Your task to perform on an android device: Clear all items from cart on target.com. Search for "alienware area 51" on target.com, select the first entry, add it to the cart, then select checkout. Image 0: 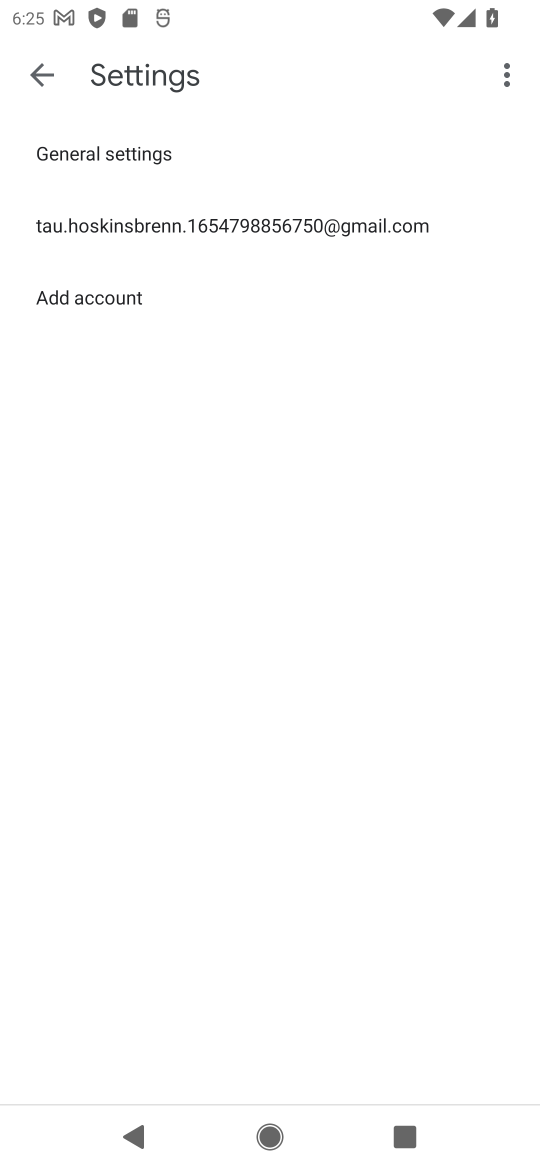
Step 0: press home button
Your task to perform on an android device: Clear all items from cart on target.com. Search for "alienware area 51" on target.com, select the first entry, add it to the cart, then select checkout. Image 1: 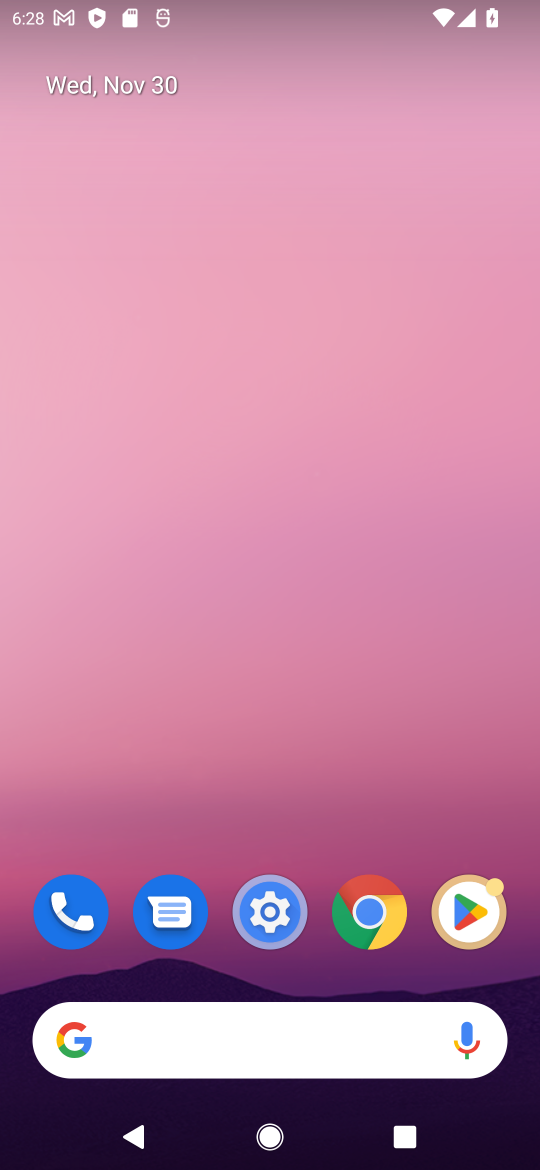
Step 1: click (216, 1037)
Your task to perform on an android device: Clear all items from cart on target.com. Search for "alienware area 51" on target.com, select the first entry, add it to the cart, then select checkout. Image 2: 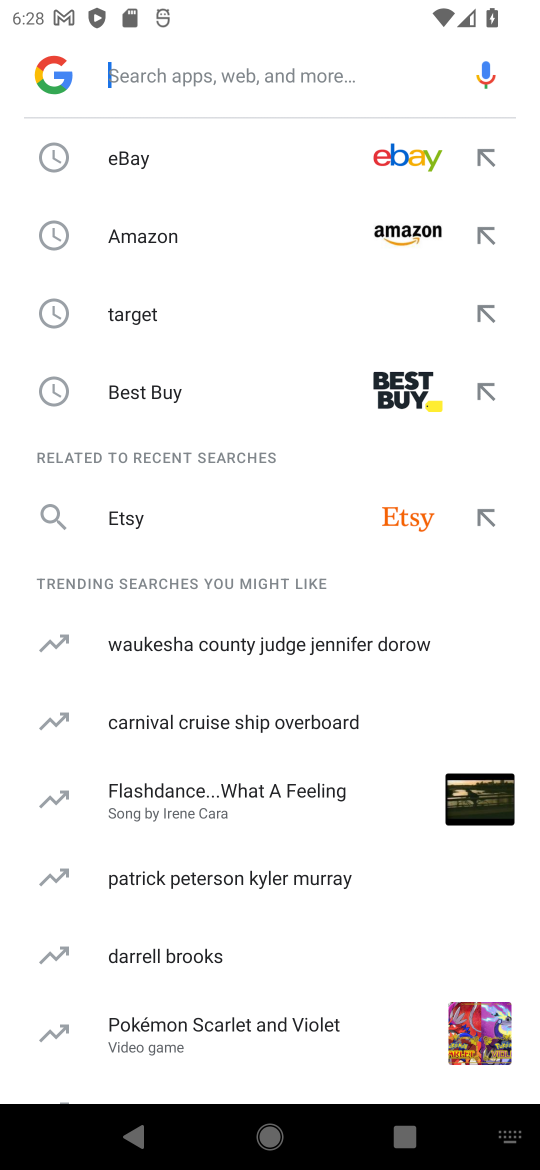
Step 2: click (140, 301)
Your task to perform on an android device: Clear all items from cart on target.com. Search for "alienware area 51" on target.com, select the first entry, add it to the cart, then select checkout. Image 3: 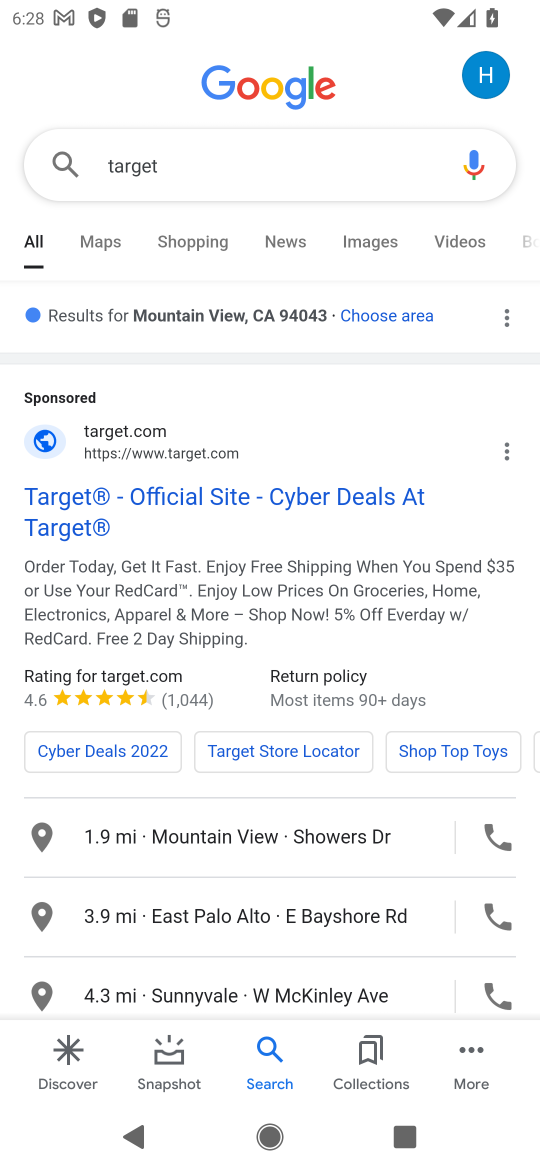
Step 3: click (260, 484)
Your task to perform on an android device: Clear all items from cart on target.com. Search for "alienware area 51" on target.com, select the first entry, add it to the cart, then select checkout. Image 4: 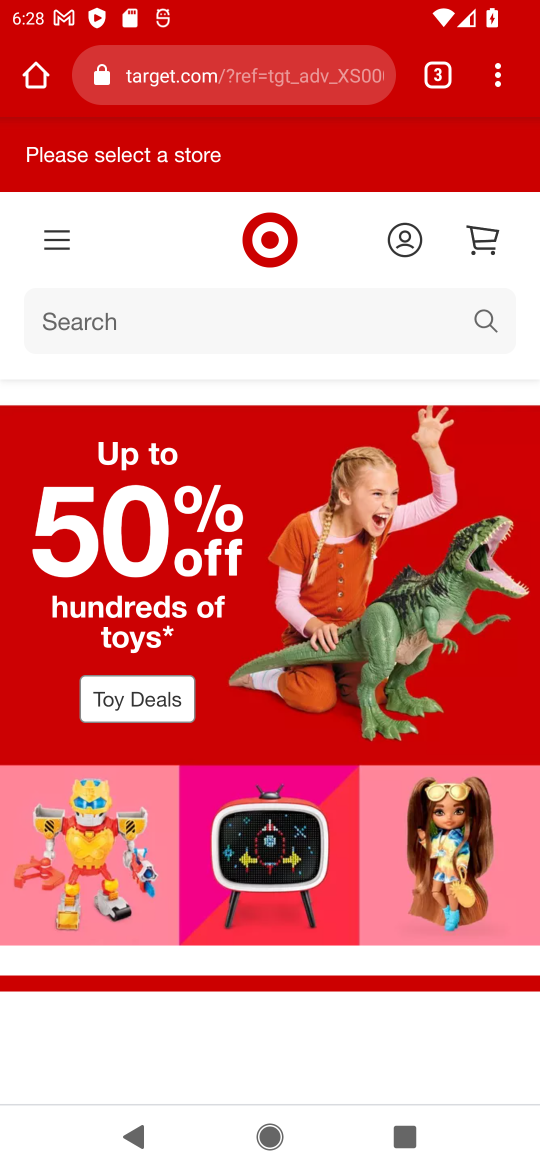
Step 4: click (142, 325)
Your task to perform on an android device: Clear all items from cart on target.com. Search for "alienware area 51" on target.com, select the first entry, add it to the cart, then select checkout. Image 5: 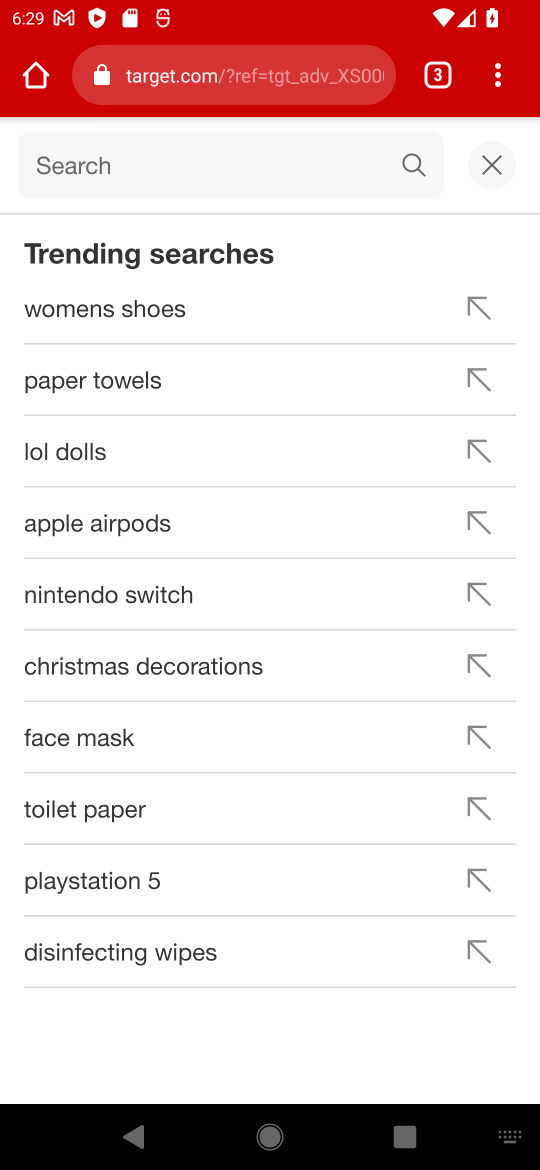
Step 5: type "alienware area 51"
Your task to perform on an android device: Clear all items from cart on target.com. Search for "alienware area 51" on target.com, select the first entry, add it to the cart, then select checkout. Image 6: 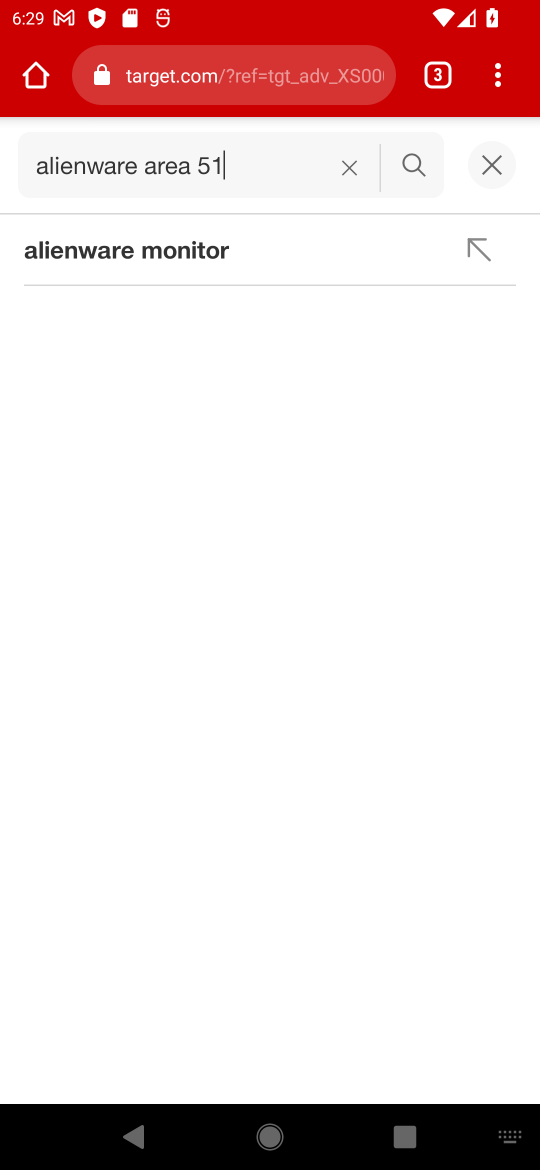
Step 6: click (167, 264)
Your task to perform on an android device: Clear all items from cart on target.com. Search for "alienware area 51" on target.com, select the first entry, add it to the cart, then select checkout. Image 7: 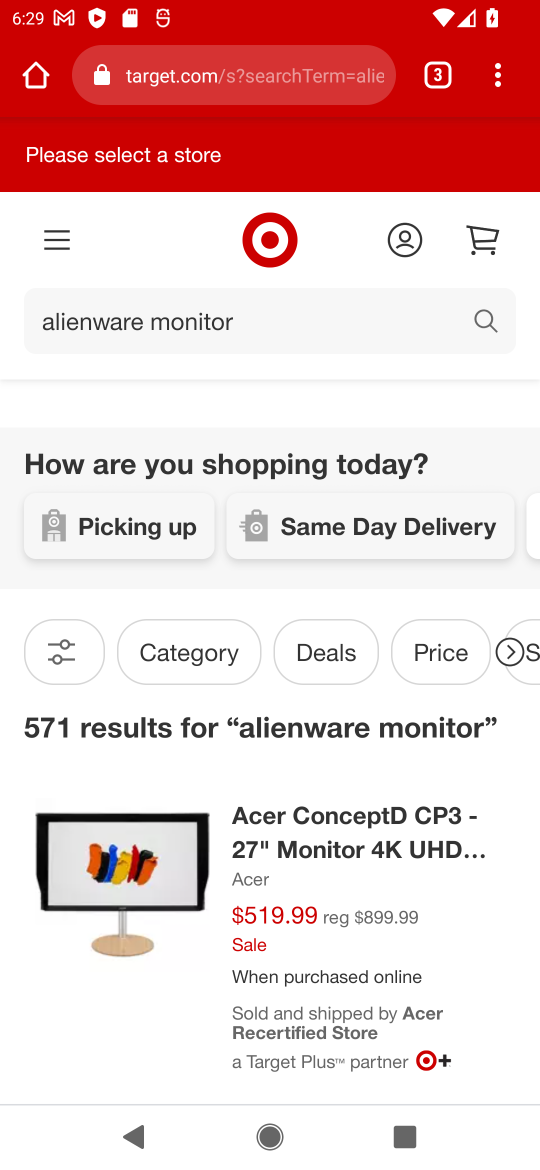
Step 7: click (300, 970)
Your task to perform on an android device: Clear all items from cart on target.com. Search for "alienware area 51" on target.com, select the first entry, add it to the cart, then select checkout. Image 8: 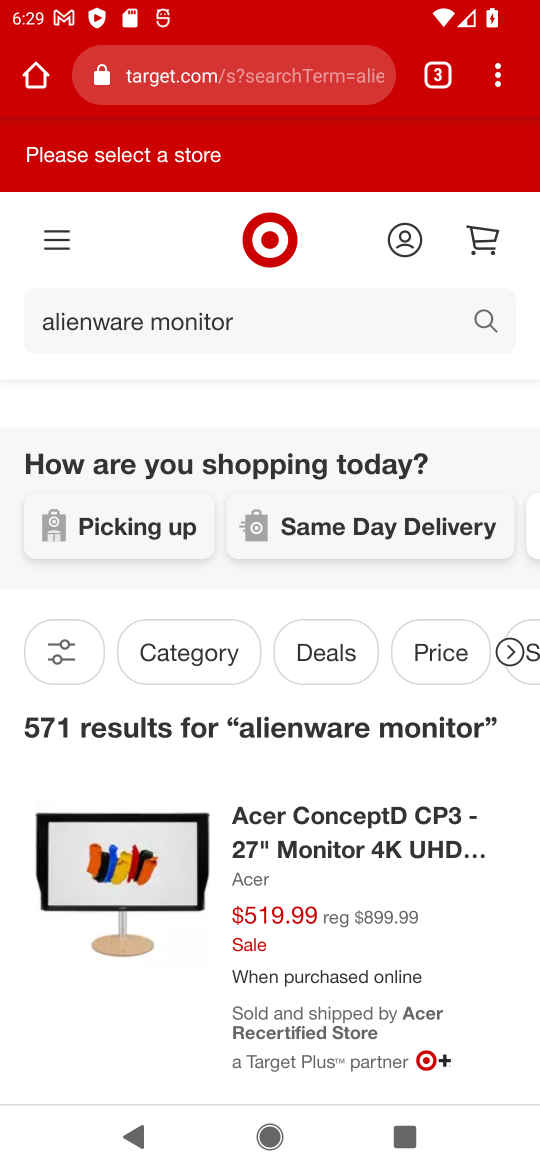
Step 8: click (250, 824)
Your task to perform on an android device: Clear all items from cart on target.com. Search for "alienware area 51" on target.com, select the first entry, add it to the cart, then select checkout. Image 9: 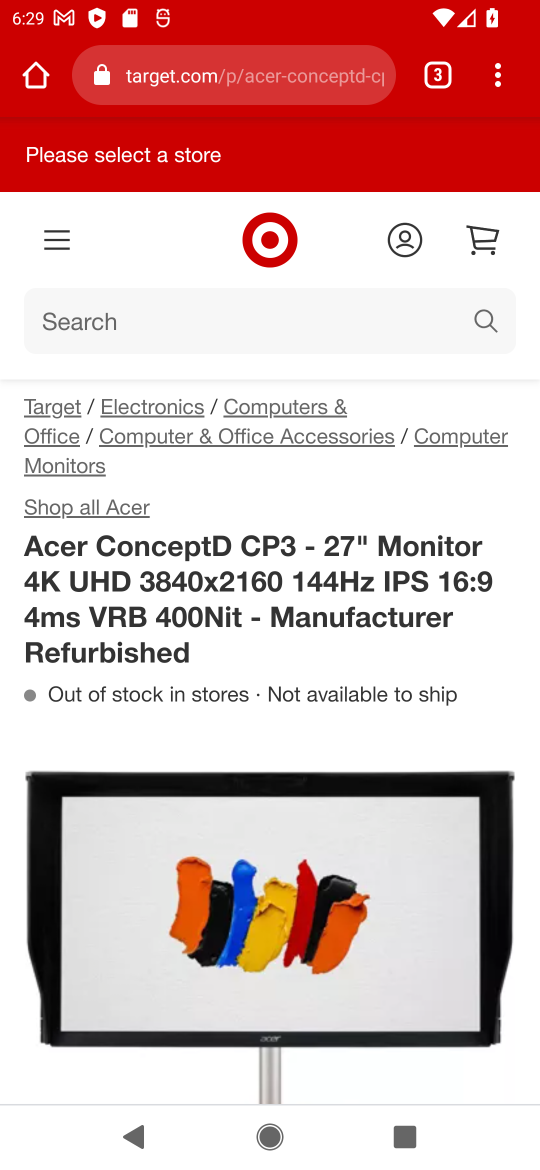
Step 9: drag from (414, 615) to (398, 517)
Your task to perform on an android device: Clear all items from cart on target.com. Search for "alienware area 51" on target.com, select the first entry, add it to the cart, then select checkout. Image 10: 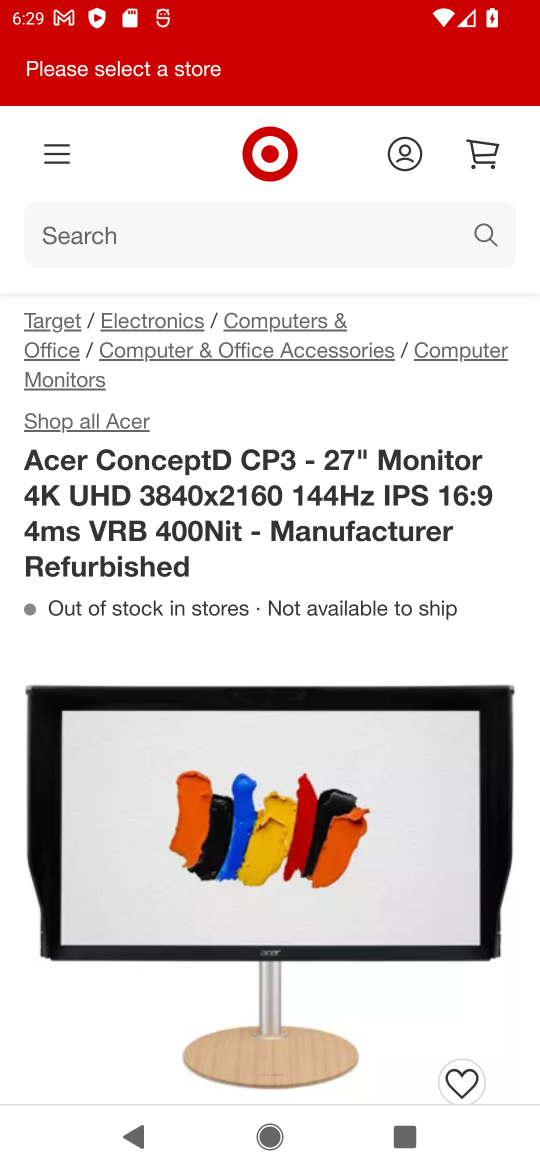
Step 10: drag from (298, 937) to (251, 517)
Your task to perform on an android device: Clear all items from cart on target.com. Search for "alienware area 51" on target.com, select the first entry, add it to the cart, then select checkout. Image 11: 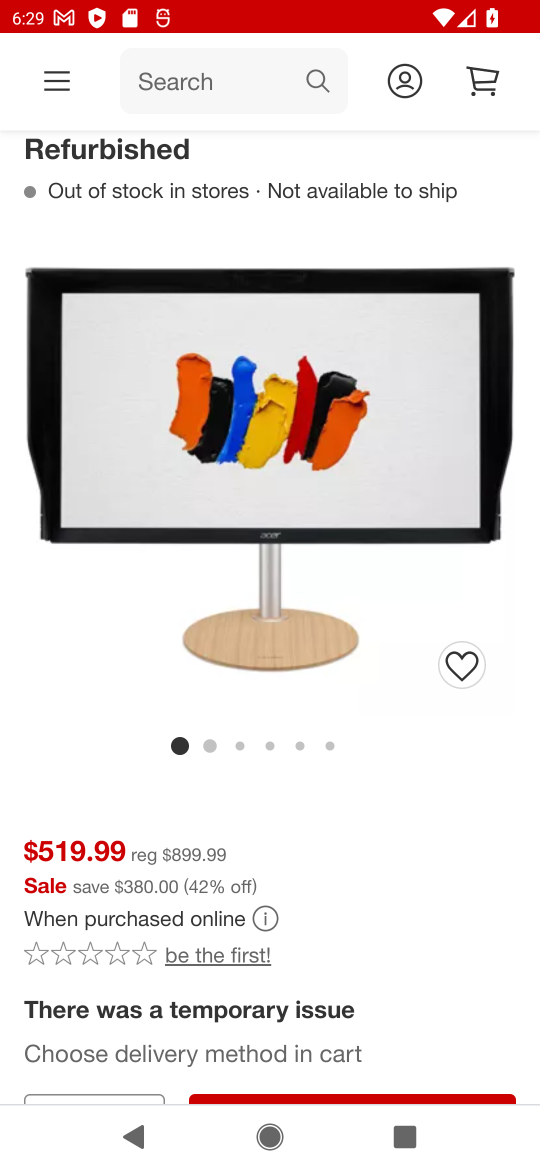
Step 11: drag from (286, 849) to (280, 539)
Your task to perform on an android device: Clear all items from cart on target.com. Search for "alienware area 51" on target.com, select the first entry, add it to the cart, then select checkout. Image 12: 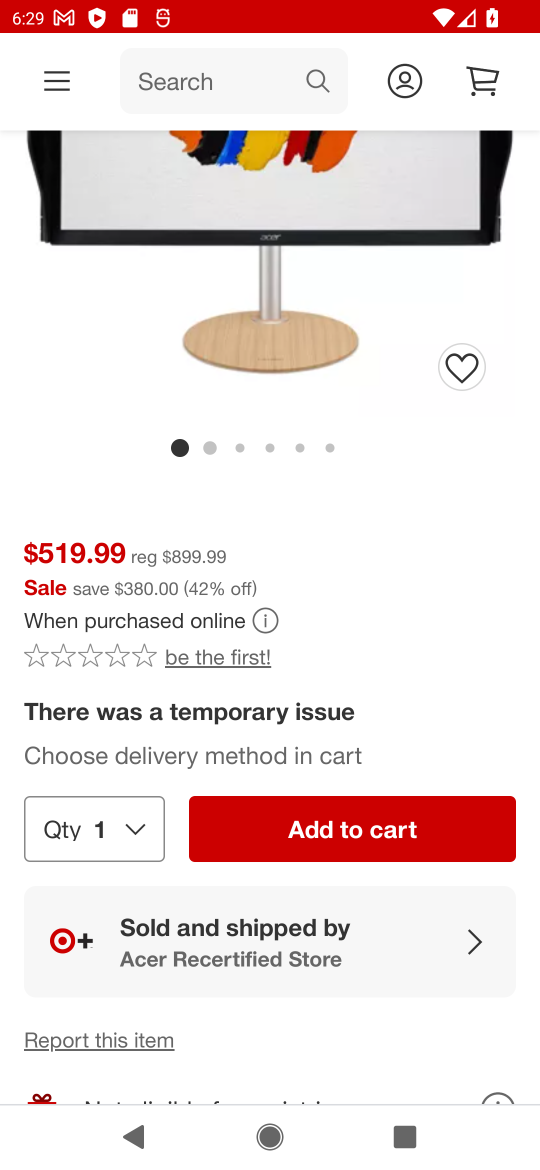
Step 12: click (348, 834)
Your task to perform on an android device: Clear all items from cart on target.com. Search for "alienware area 51" on target.com, select the first entry, add it to the cart, then select checkout. Image 13: 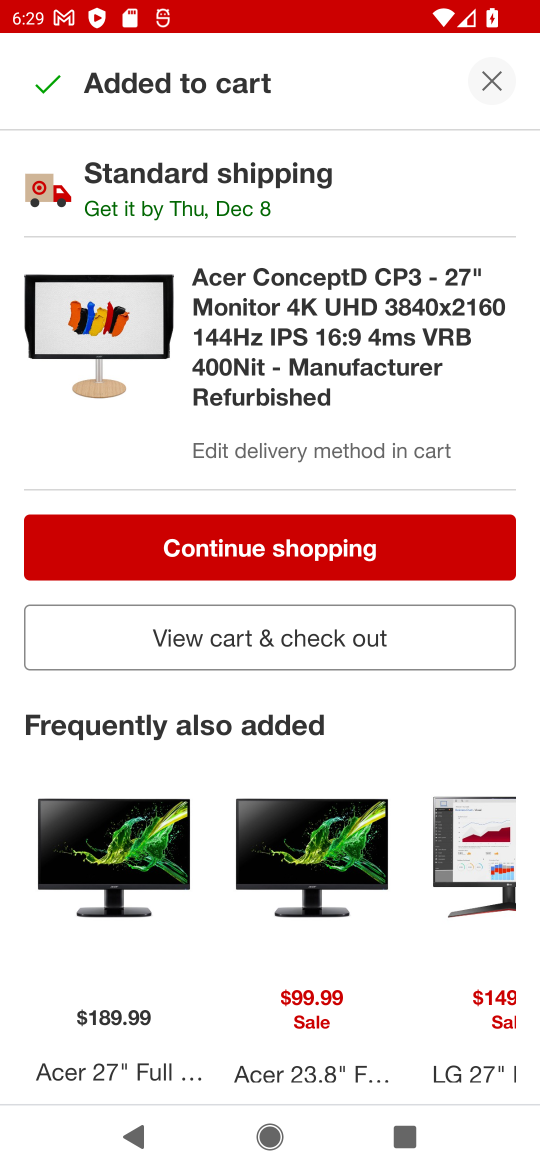
Step 13: click (300, 634)
Your task to perform on an android device: Clear all items from cart on target.com. Search for "alienware area 51" on target.com, select the first entry, add it to the cart, then select checkout. Image 14: 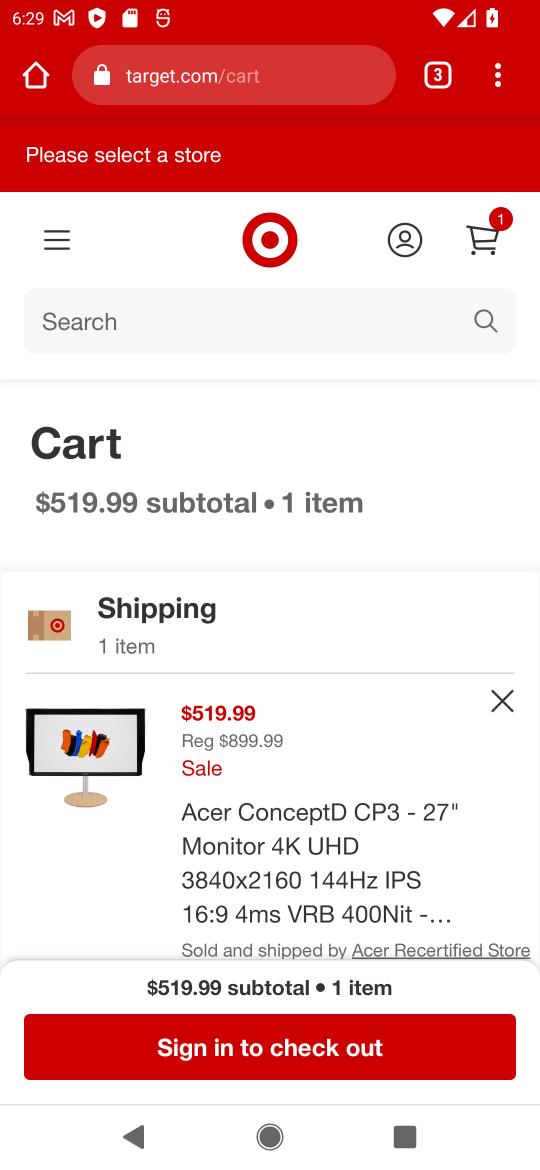
Step 14: click (296, 1051)
Your task to perform on an android device: Clear all items from cart on target.com. Search for "alienware area 51" on target.com, select the first entry, add it to the cart, then select checkout. Image 15: 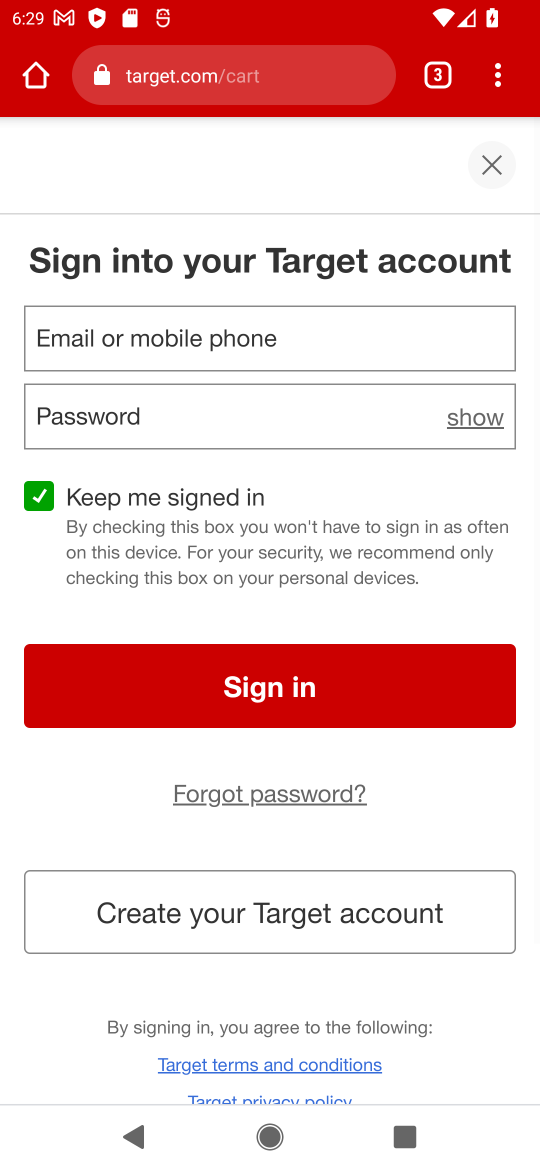
Step 15: task complete